Your task to perform on an android device: show emergency info Image 0: 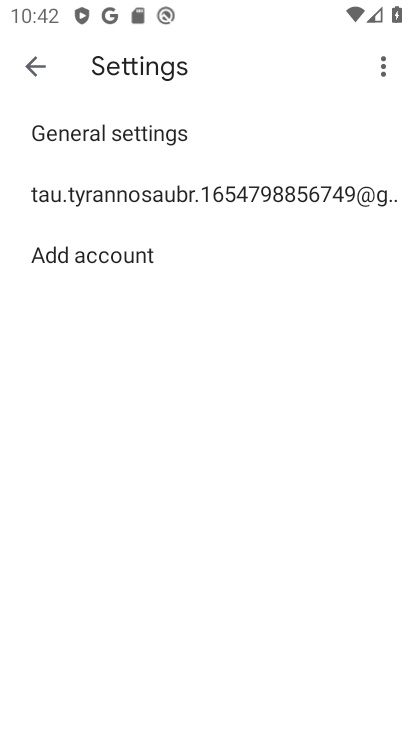
Step 0: press home button
Your task to perform on an android device: show emergency info Image 1: 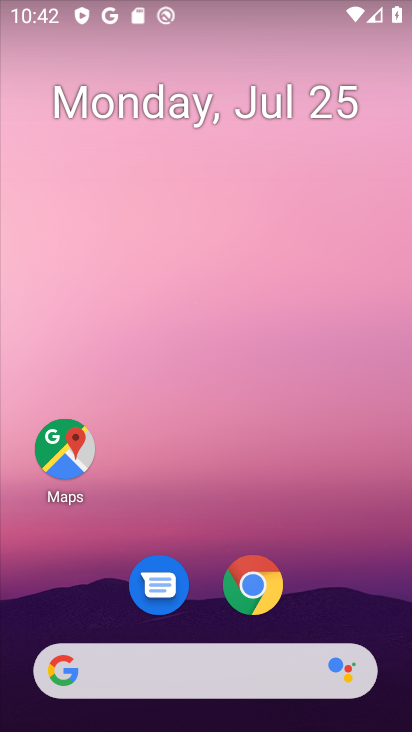
Step 1: drag from (312, 597) to (242, 80)
Your task to perform on an android device: show emergency info Image 2: 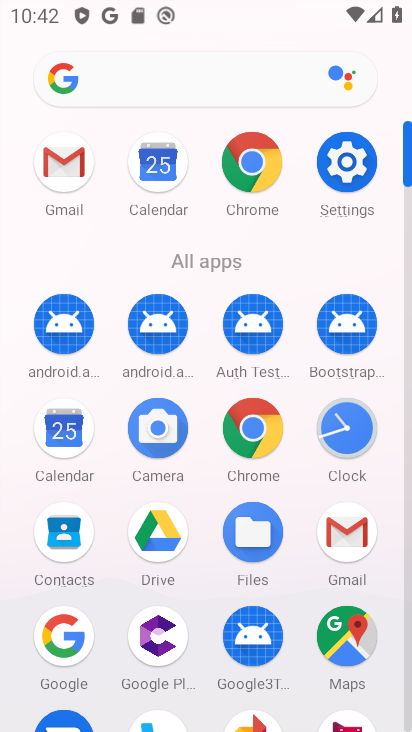
Step 2: click (339, 167)
Your task to perform on an android device: show emergency info Image 3: 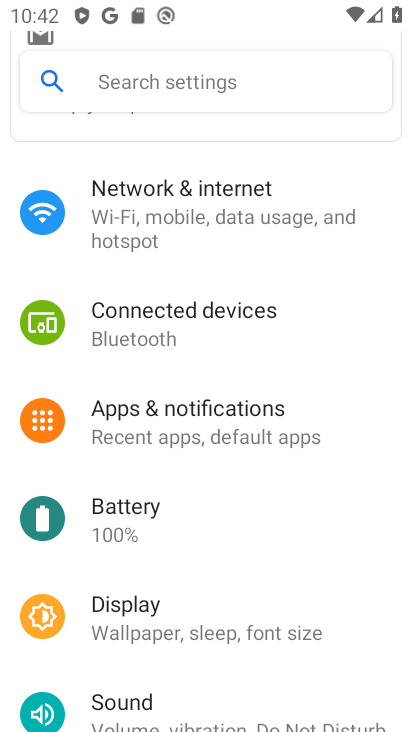
Step 3: drag from (303, 556) to (277, 25)
Your task to perform on an android device: show emergency info Image 4: 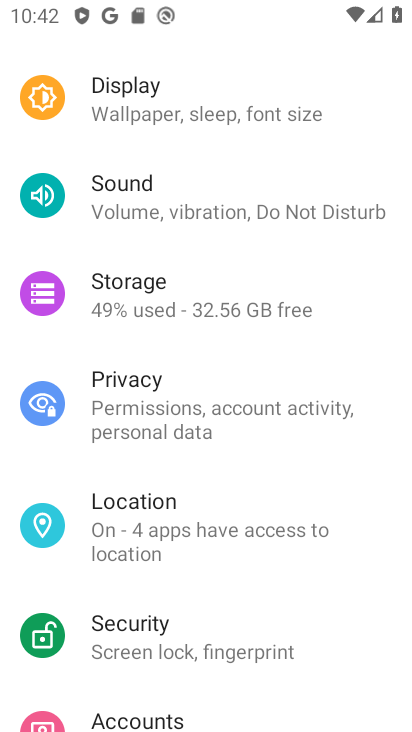
Step 4: drag from (248, 570) to (248, 104)
Your task to perform on an android device: show emergency info Image 5: 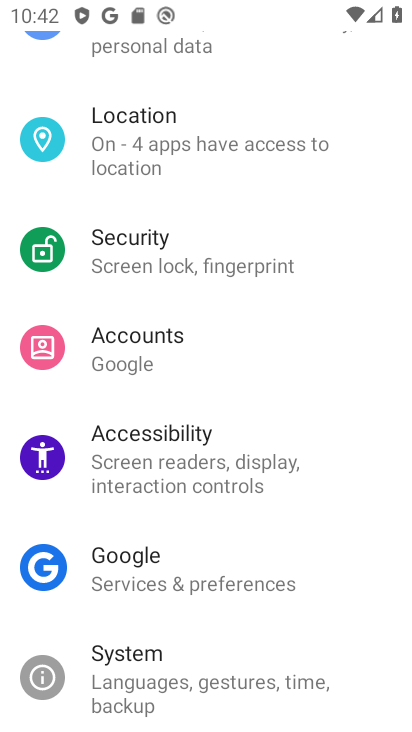
Step 5: drag from (223, 512) to (236, 135)
Your task to perform on an android device: show emergency info Image 6: 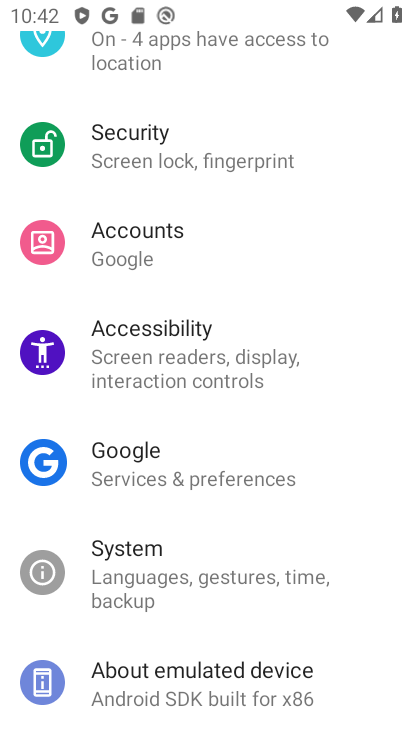
Step 6: click (186, 677)
Your task to perform on an android device: show emergency info Image 7: 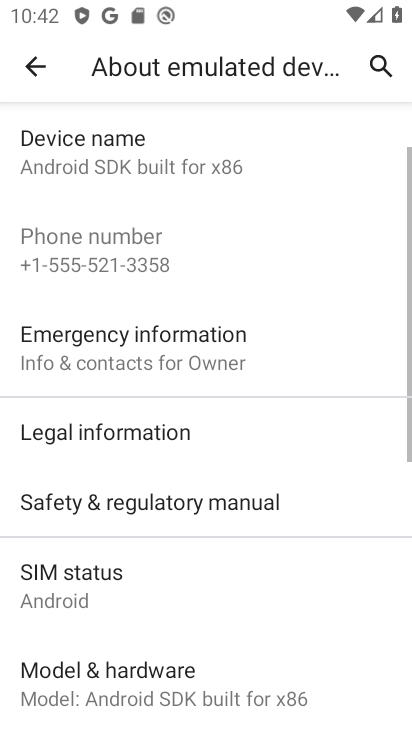
Step 7: click (201, 341)
Your task to perform on an android device: show emergency info Image 8: 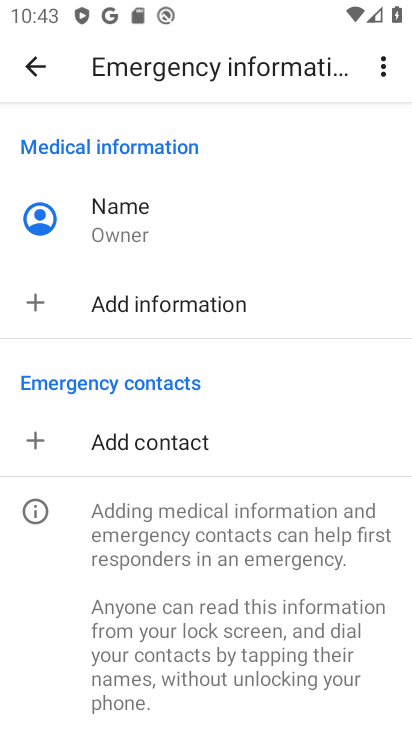
Step 8: task complete